Your task to perform on an android device: Go to Reddit.com Image 0: 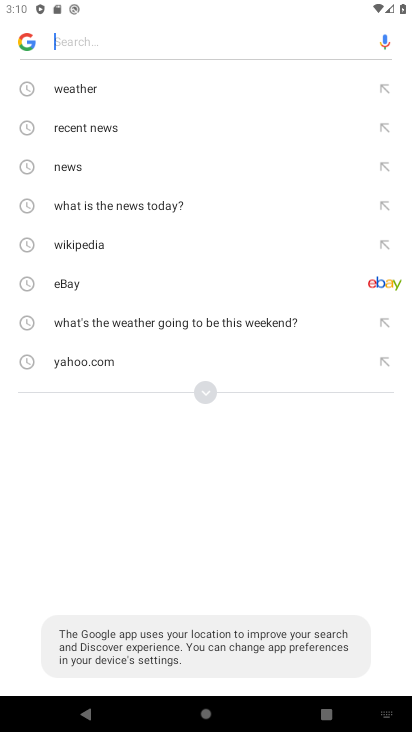
Step 0: press home button
Your task to perform on an android device: Go to Reddit.com Image 1: 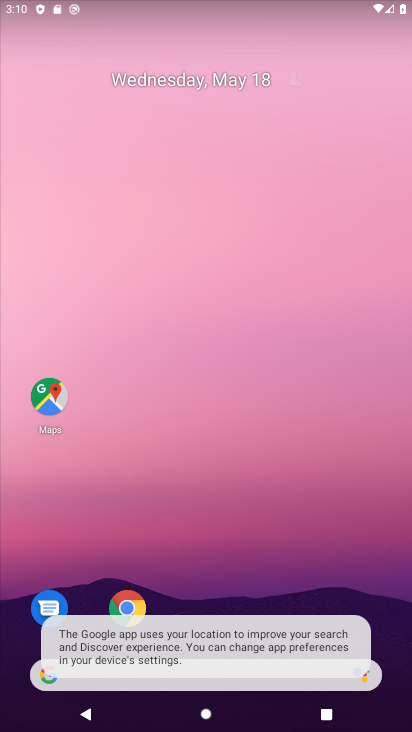
Step 1: drag from (109, 570) to (168, 379)
Your task to perform on an android device: Go to Reddit.com Image 2: 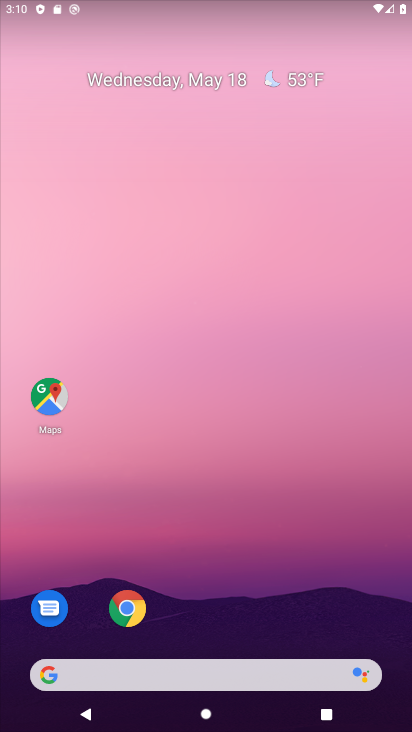
Step 2: drag from (142, 614) to (199, 375)
Your task to perform on an android device: Go to Reddit.com Image 3: 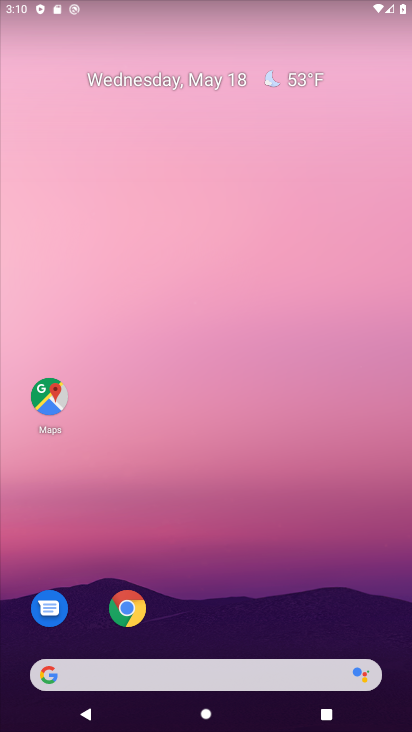
Step 3: drag from (139, 658) to (187, 371)
Your task to perform on an android device: Go to Reddit.com Image 4: 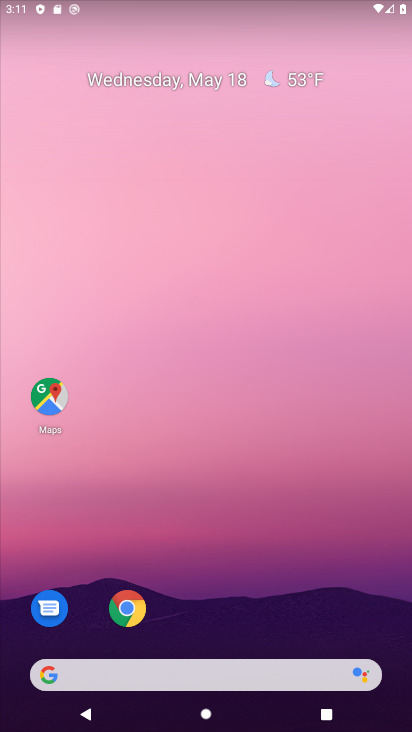
Step 4: drag from (131, 654) to (132, 307)
Your task to perform on an android device: Go to Reddit.com Image 5: 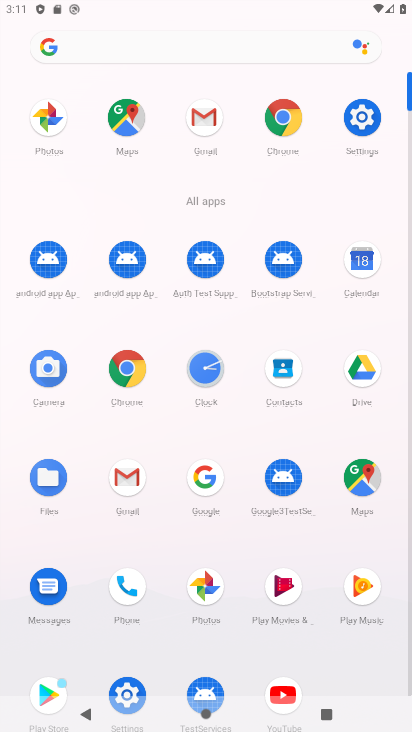
Step 5: click (203, 481)
Your task to perform on an android device: Go to Reddit.com Image 6: 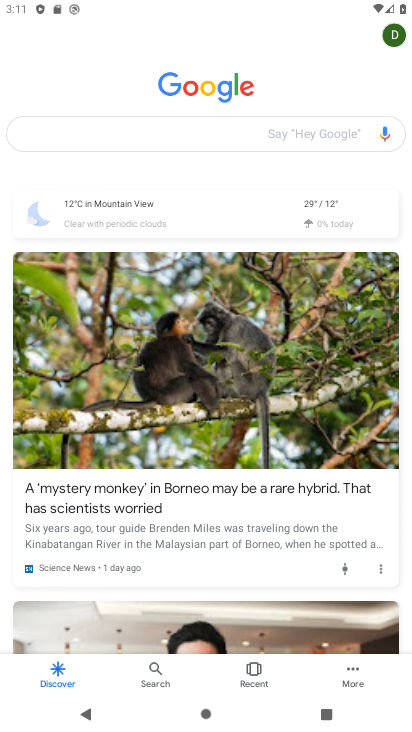
Step 6: click (37, 135)
Your task to perform on an android device: Go to Reddit.com Image 7: 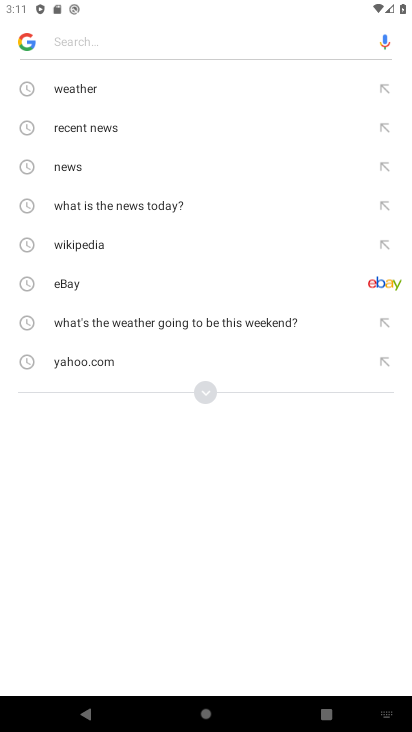
Step 7: click (206, 399)
Your task to perform on an android device: Go to Reddit.com Image 8: 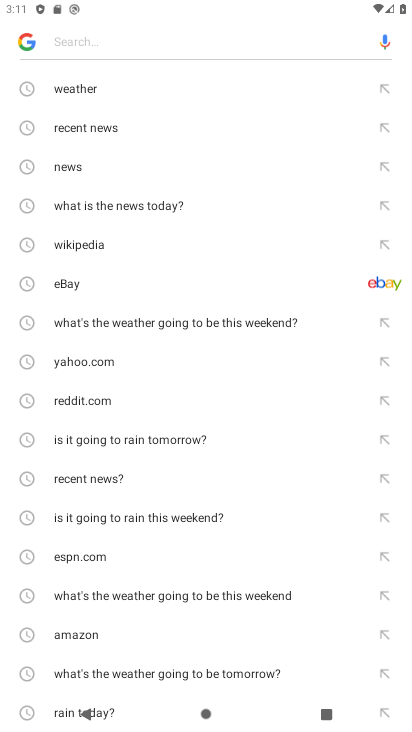
Step 8: click (89, 395)
Your task to perform on an android device: Go to Reddit.com Image 9: 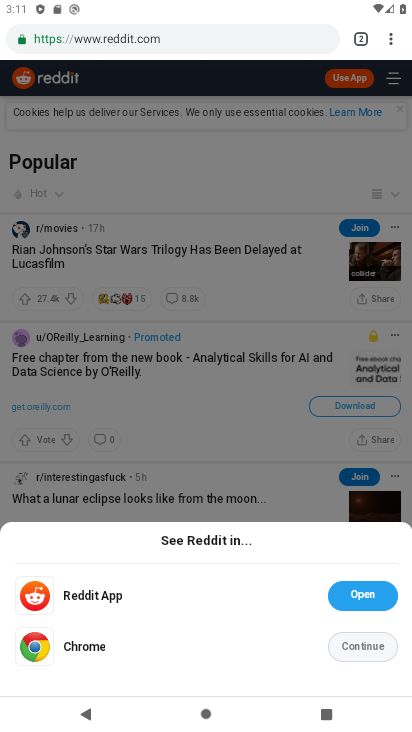
Step 9: task complete